Your task to perform on an android device: Search for sushi restaurants on Maps Image 0: 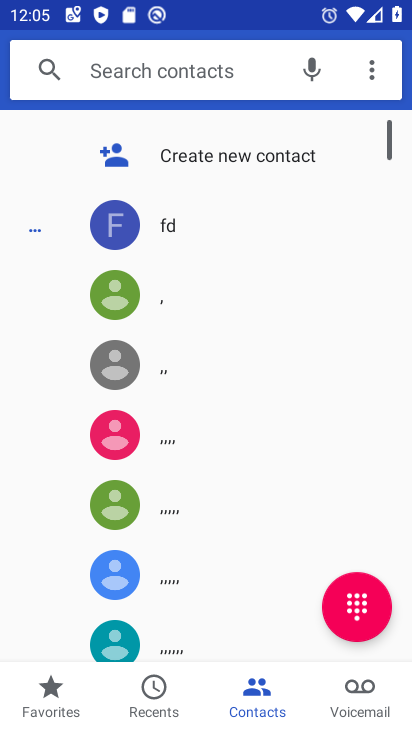
Step 0: press home button
Your task to perform on an android device: Search for sushi restaurants on Maps Image 1: 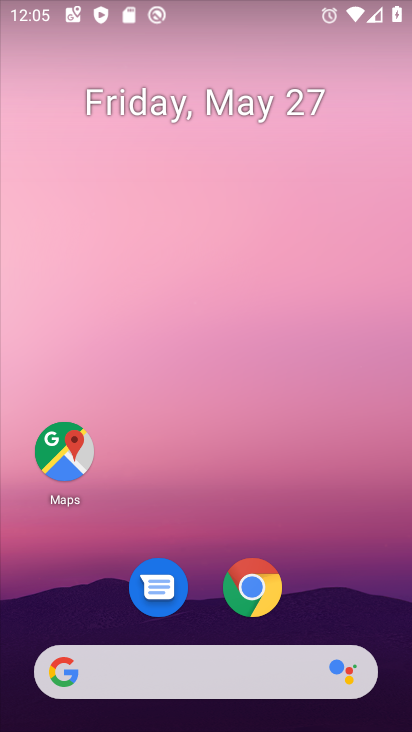
Step 1: drag from (251, 722) to (344, 80)
Your task to perform on an android device: Search for sushi restaurants on Maps Image 2: 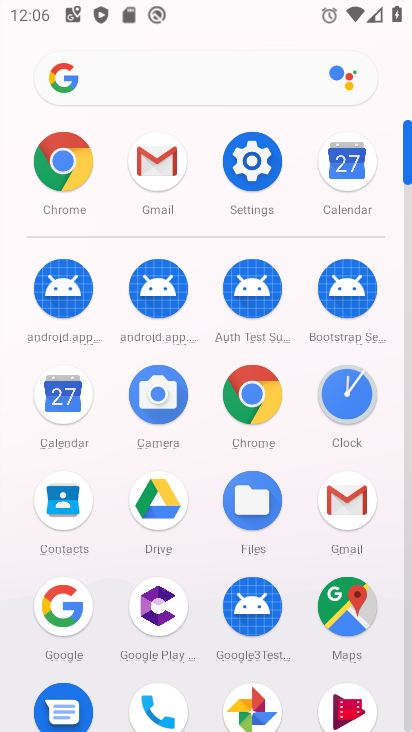
Step 2: click (342, 606)
Your task to perform on an android device: Search for sushi restaurants on Maps Image 3: 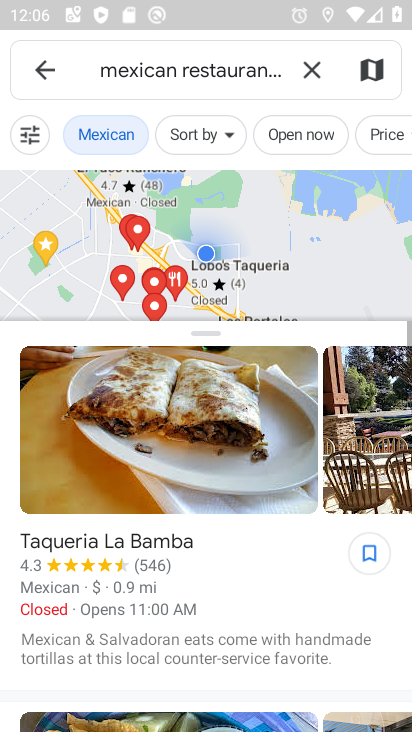
Step 3: click (313, 70)
Your task to perform on an android device: Search for sushi restaurants on Maps Image 4: 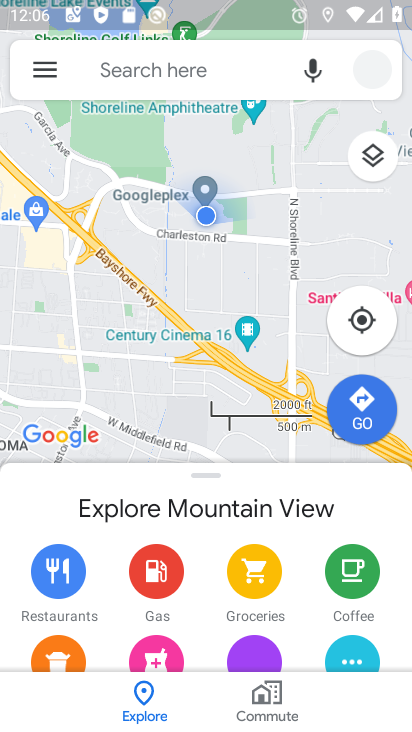
Step 4: click (200, 74)
Your task to perform on an android device: Search for sushi restaurants on Maps Image 5: 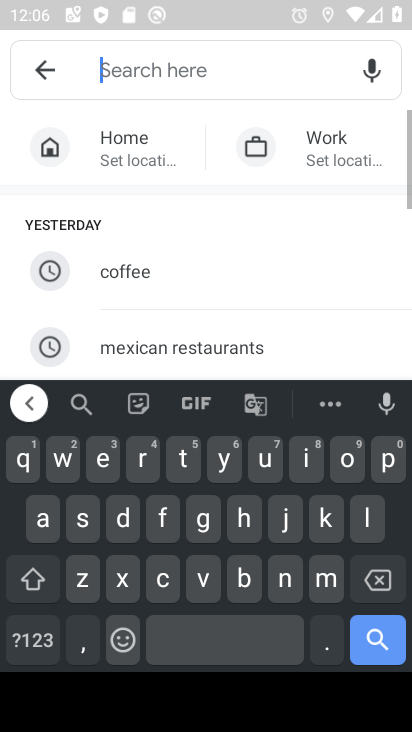
Step 5: click (75, 516)
Your task to perform on an android device: Search for sushi restaurants on Maps Image 6: 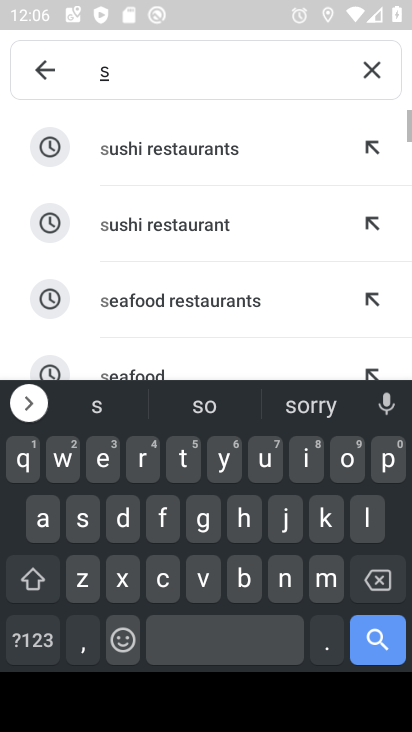
Step 6: click (167, 147)
Your task to perform on an android device: Search for sushi restaurants on Maps Image 7: 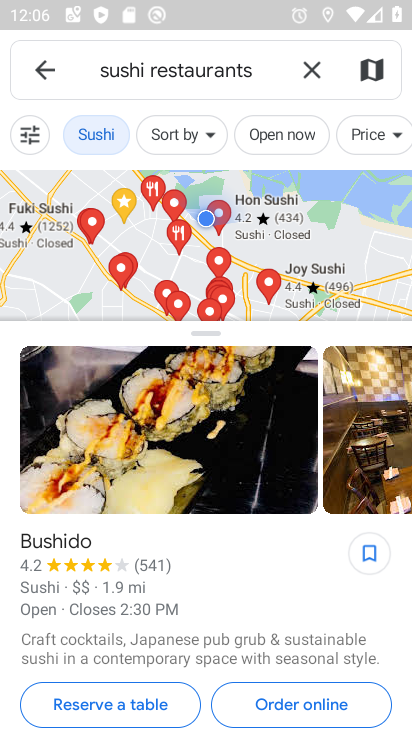
Step 7: click (284, 202)
Your task to perform on an android device: Search for sushi restaurants on Maps Image 8: 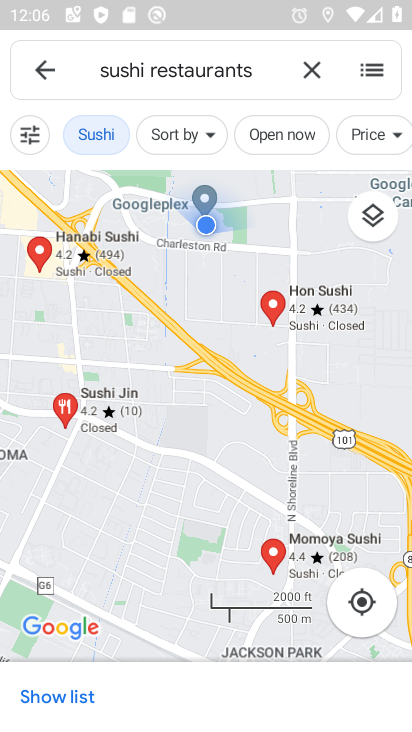
Step 8: task complete